Your task to perform on an android device: Go to ESPN.com Image 0: 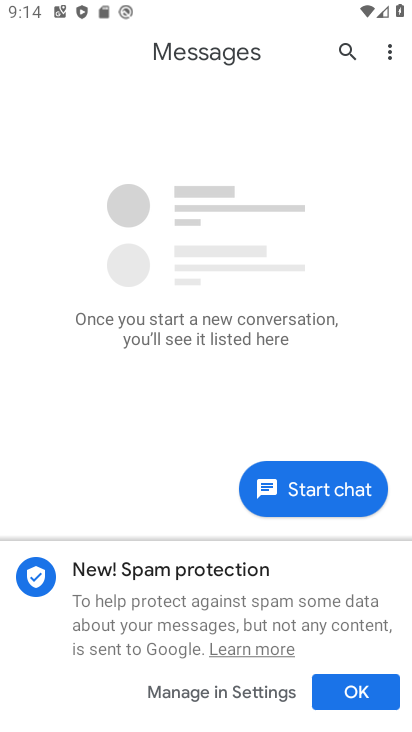
Step 0: press home button
Your task to perform on an android device: Go to ESPN.com Image 1: 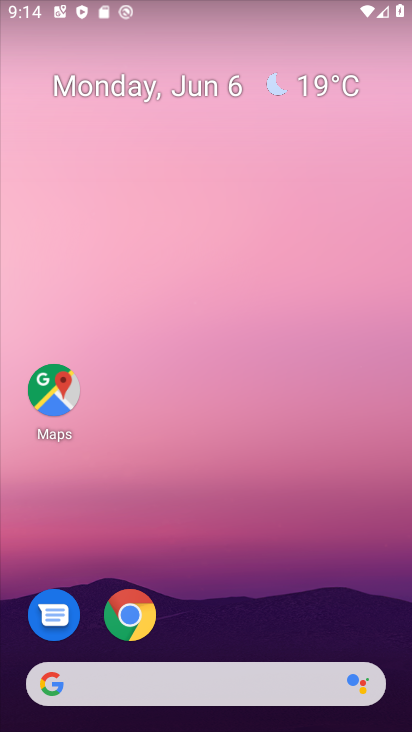
Step 1: click (114, 627)
Your task to perform on an android device: Go to ESPN.com Image 2: 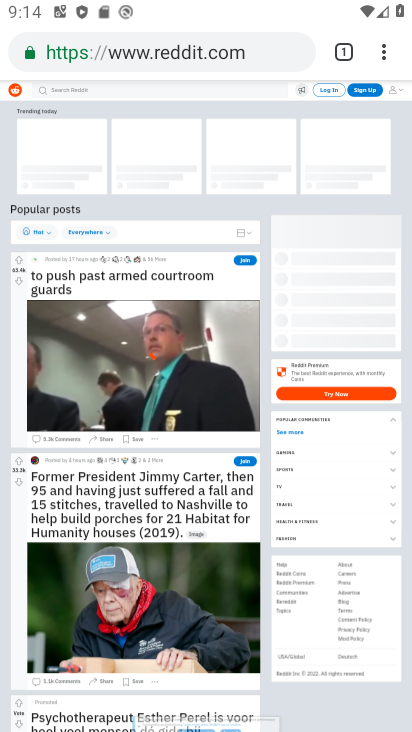
Step 2: click (335, 41)
Your task to perform on an android device: Go to ESPN.com Image 3: 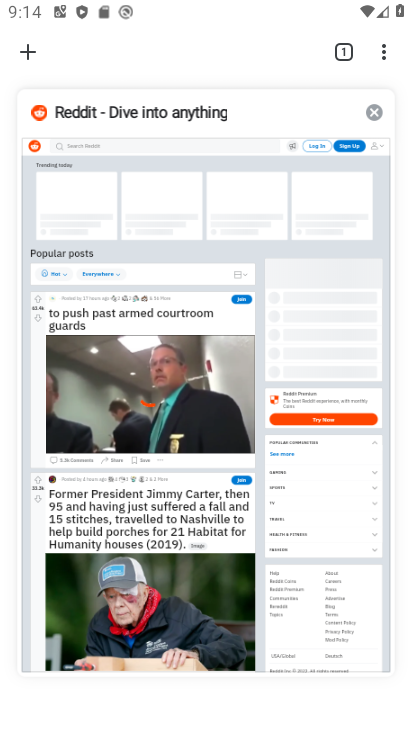
Step 3: click (24, 54)
Your task to perform on an android device: Go to ESPN.com Image 4: 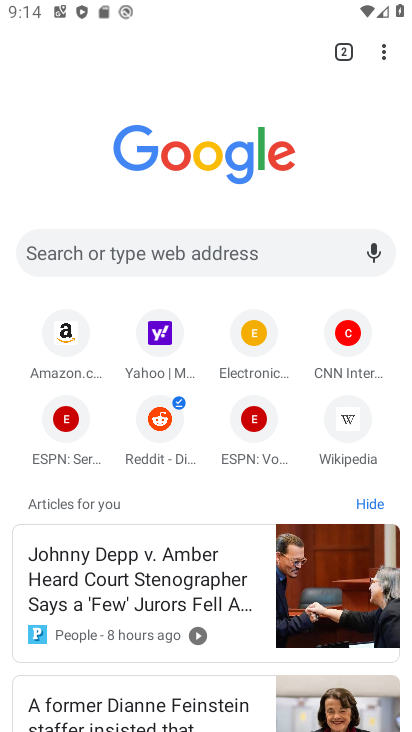
Step 4: click (73, 421)
Your task to perform on an android device: Go to ESPN.com Image 5: 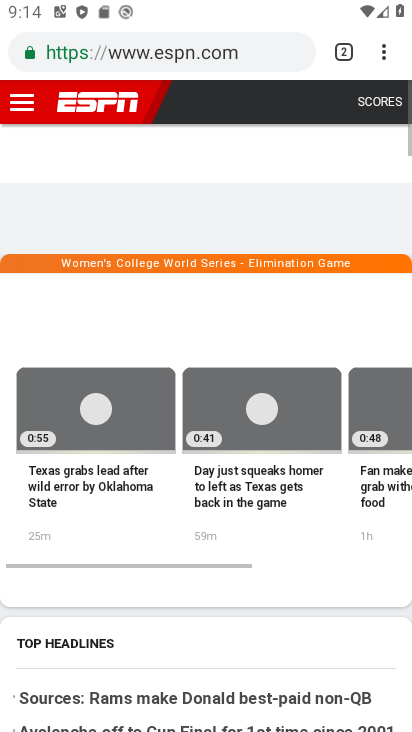
Step 5: task complete